Your task to perform on an android device: Open Google Chrome and open the bookmarks view Image 0: 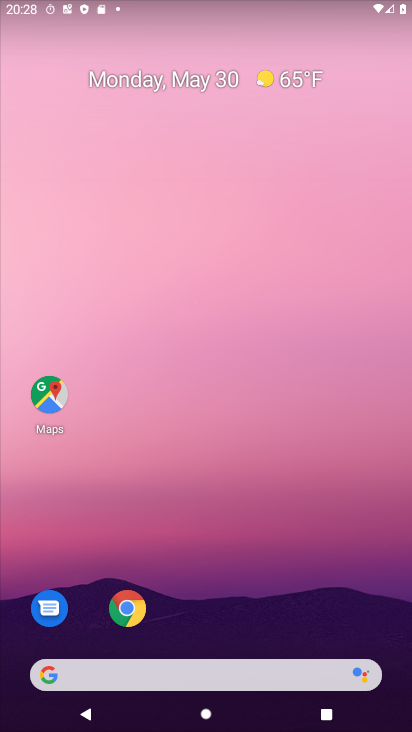
Step 0: click (133, 613)
Your task to perform on an android device: Open Google Chrome and open the bookmarks view Image 1: 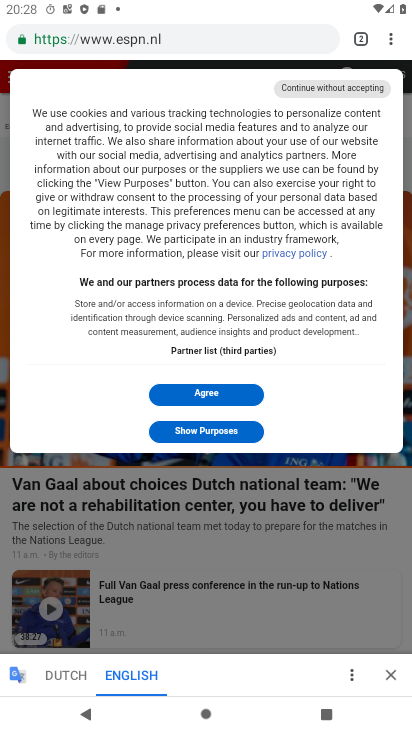
Step 1: click (191, 383)
Your task to perform on an android device: Open Google Chrome and open the bookmarks view Image 2: 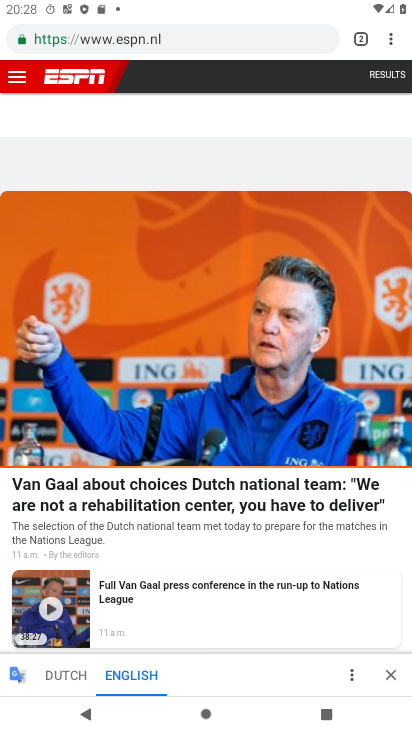
Step 2: click (387, 42)
Your task to perform on an android device: Open Google Chrome and open the bookmarks view Image 3: 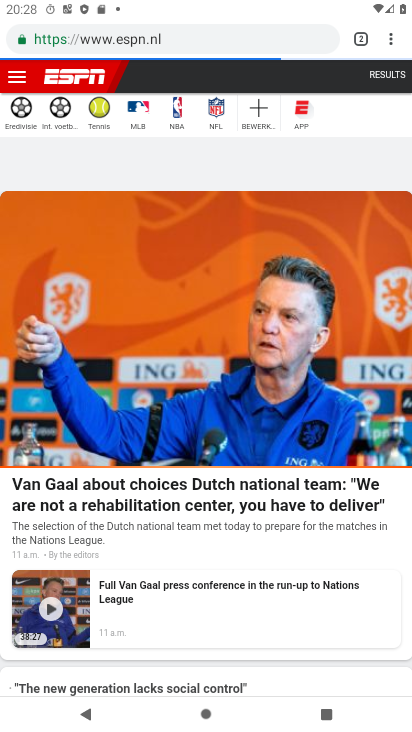
Step 3: click (388, 41)
Your task to perform on an android device: Open Google Chrome and open the bookmarks view Image 4: 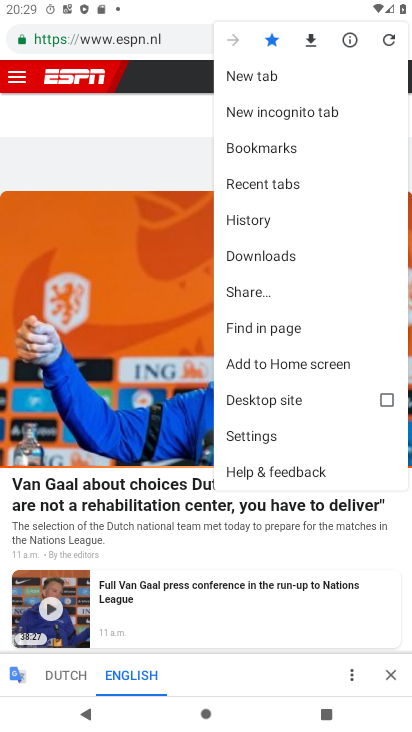
Step 4: click (292, 154)
Your task to perform on an android device: Open Google Chrome and open the bookmarks view Image 5: 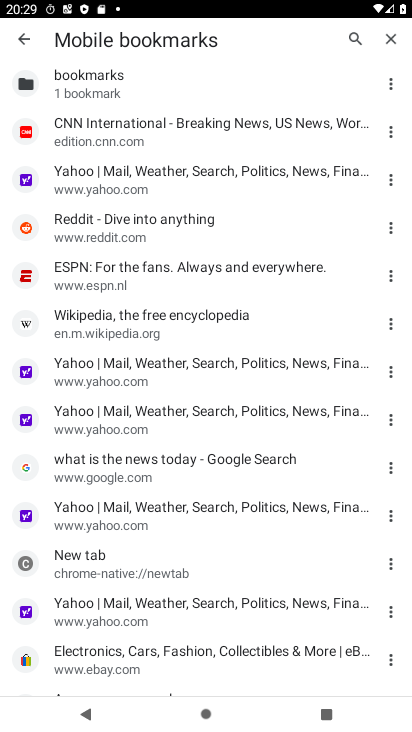
Step 5: task complete